Your task to perform on an android device: Open Reddit.com Image 0: 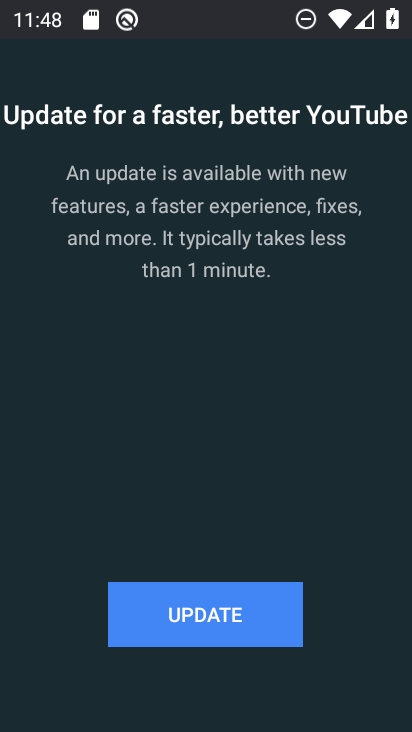
Step 0: press home button
Your task to perform on an android device: Open Reddit.com Image 1: 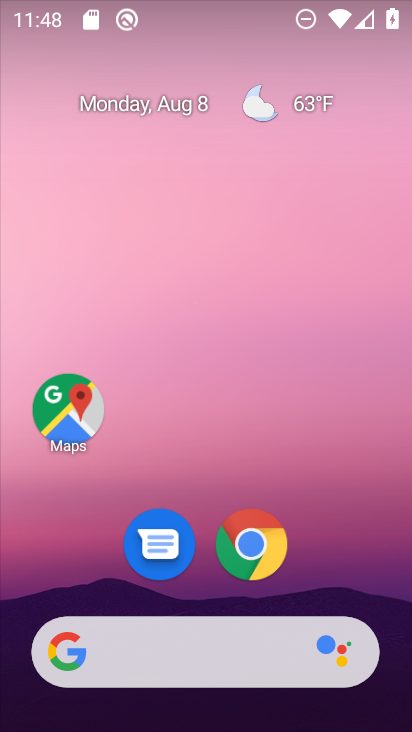
Step 1: click (253, 545)
Your task to perform on an android device: Open Reddit.com Image 2: 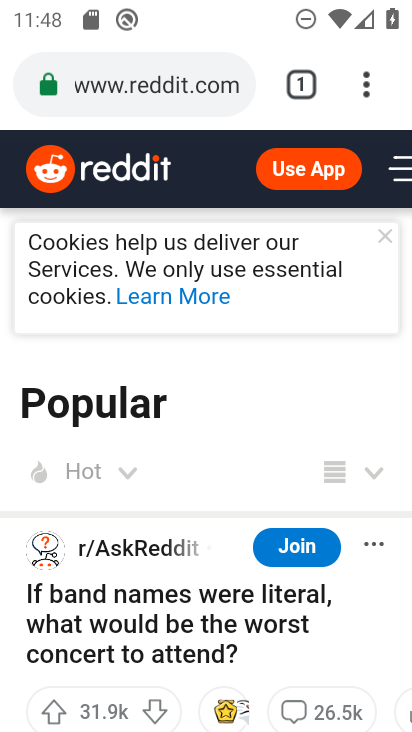
Step 2: click (205, 82)
Your task to perform on an android device: Open Reddit.com Image 3: 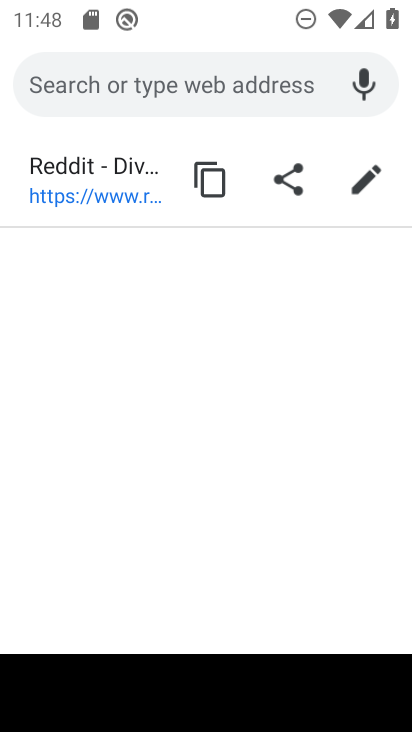
Step 3: click (96, 171)
Your task to perform on an android device: Open Reddit.com Image 4: 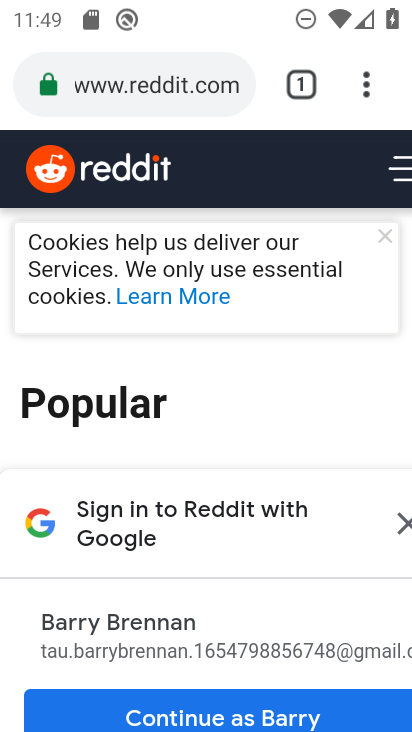
Step 4: click (405, 519)
Your task to perform on an android device: Open Reddit.com Image 5: 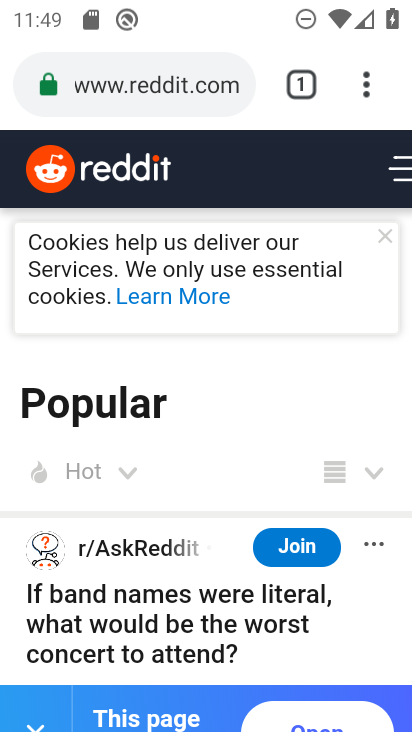
Step 5: task complete